Your task to perform on an android device: turn on priority inbox in the gmail app Image 0: 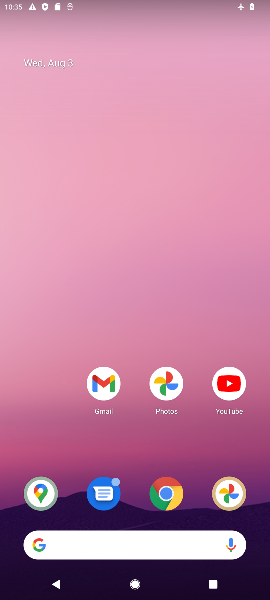
Step 0: click (170, 499)
Your task to perform on an android device: turn on priority inbox in the gmail app Image 1: 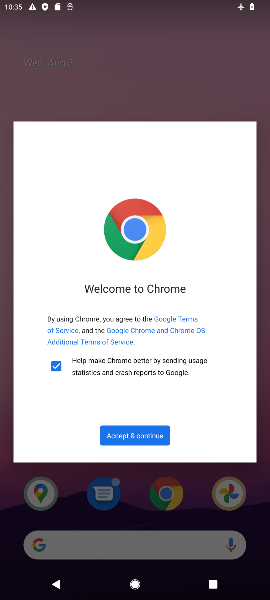
Step 1: click (145, 443)
Your task to perform on an android device: turn on priority inbox in the gmail app Image 2: 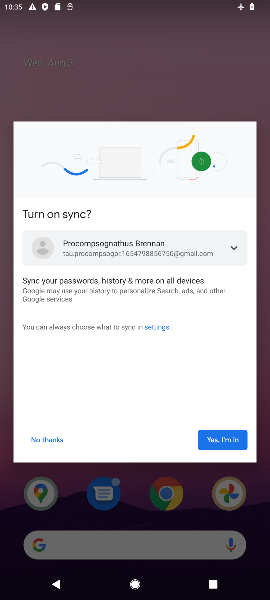
Step 2: click (230, 438)
Your task to perform on an android device: turn on priority inbox in the gmail app Image 3: 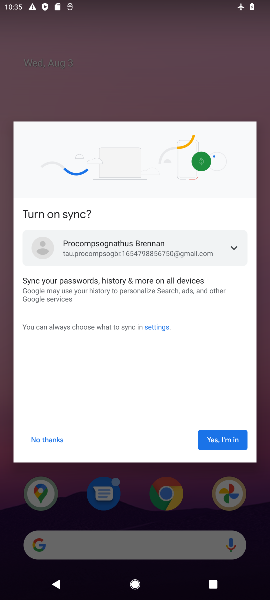
Step 3: click (232, 440)
Your task to perform on an android device: turn on priority inbox in the gmail app Image 4: 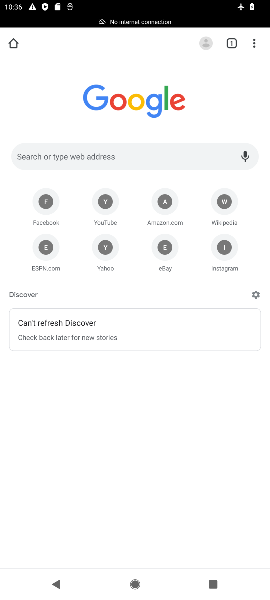
Step 4: click (116, 163)
Your task to perform on an android device: turn on priority inbox in the gmail app Image 5: 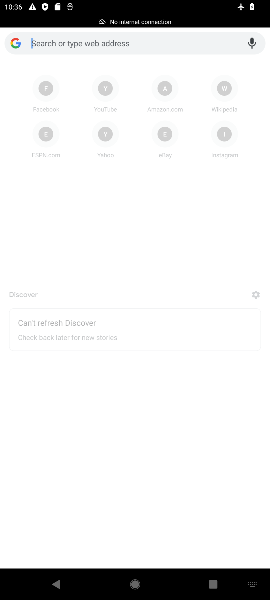
Step 5: type "What is the recent news?"
Your task to perform on an android device: turn on priority inbox in the gmail app Image 6: 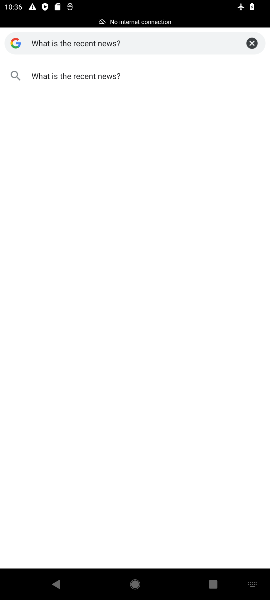
Step 6: click (142, 73)
Your task to perform on an android device: turn on priority inbox in the gmail app Image 7: 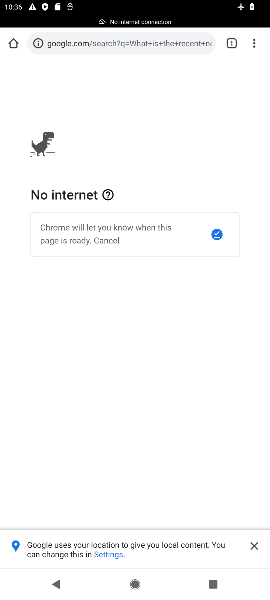
Step 7: task complete